Your task to perform on an android device: Check the news Image 0: 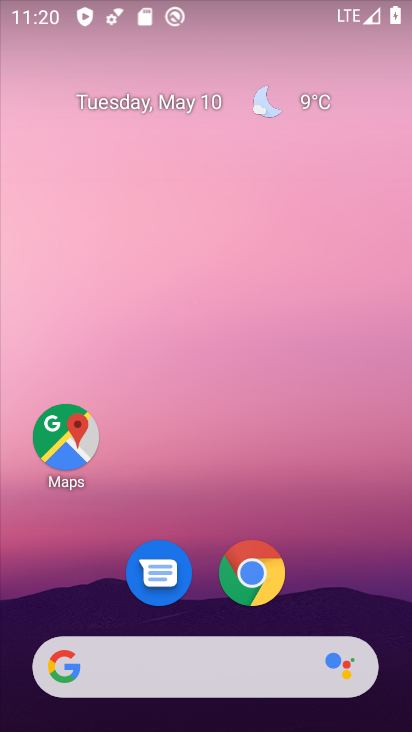
Step 0: press home button
Your task to perform on an android device: Check the news Image 1: 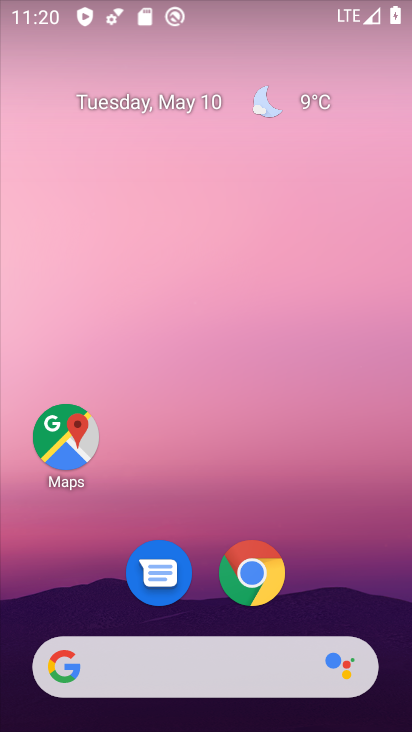
Step 1: click (70, 670)
Your task to perform on an android device: Check the news Image 2: 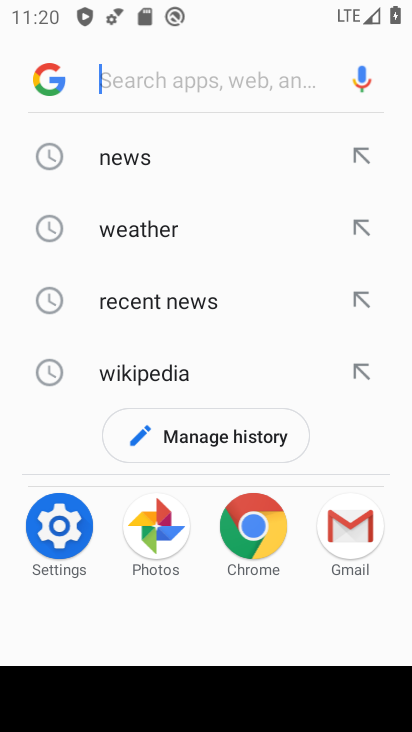
Step 2: click (142, 160)
Your task to perform on an android device: Check the news Image 3: 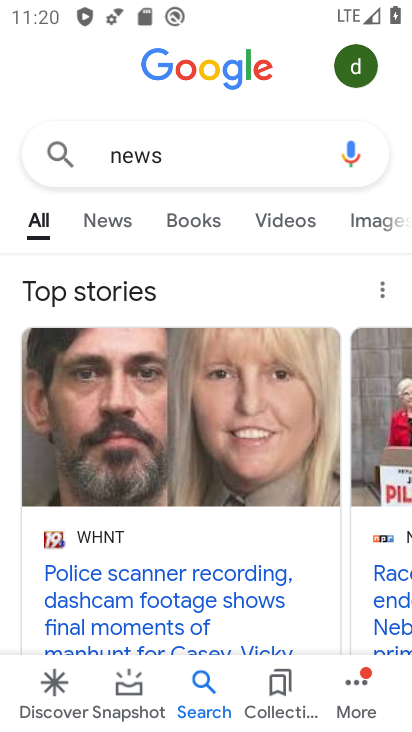
Step 3: click (110, 221)
Your task to perform on an android device: Check the news Image 4: 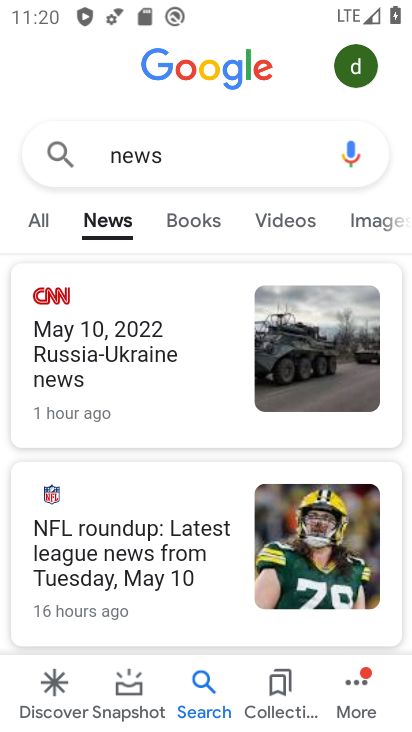
Step 4: task complete